Your task to perform on an android device: Open display settings Image 0: 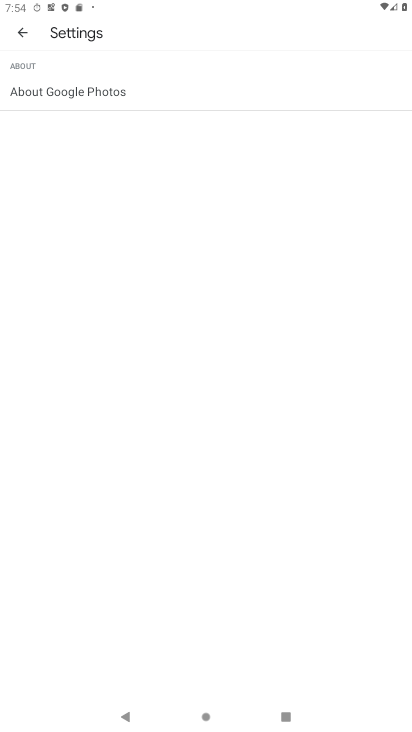
Step 0: press home button
Your task to perform on an android device: Open display settings Image 1: 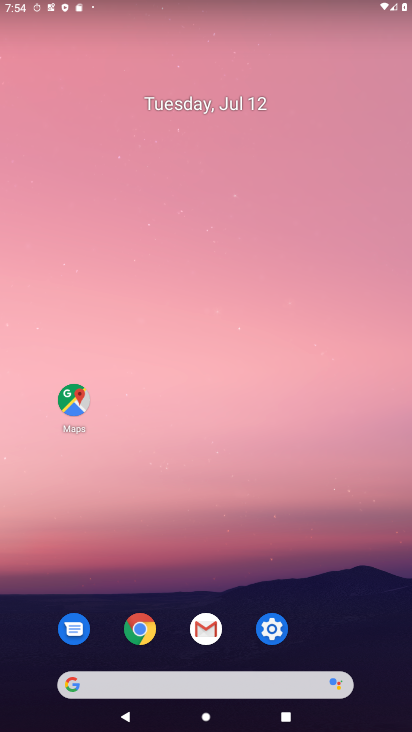
Step 1: click (273, 636)
Your task to perform on an android device: Open display settings Image 2: 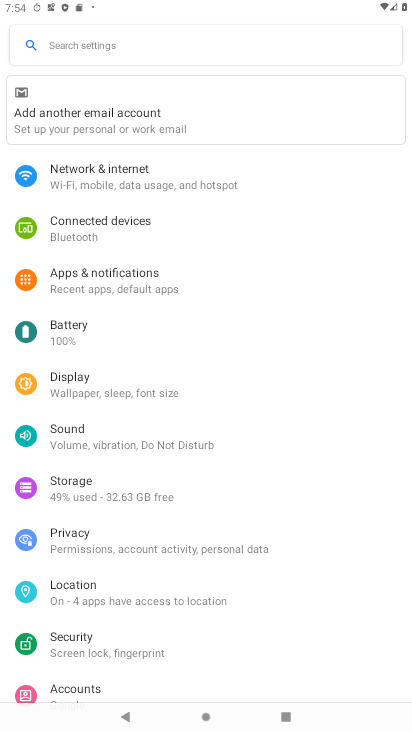
Step 2: click (91, 390)
Your task to perform on an android device: Open display settings Image 3: 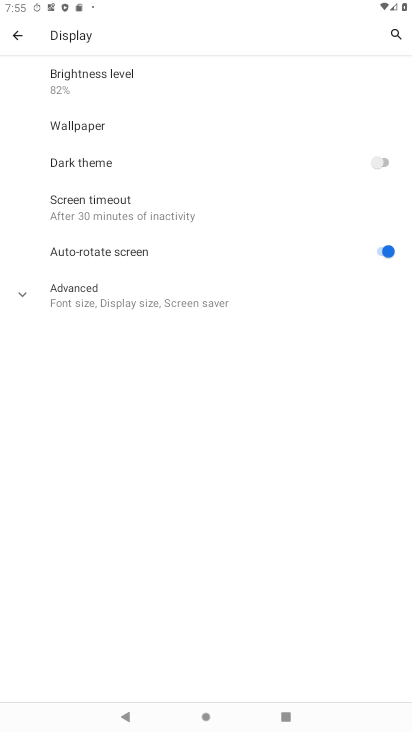
Step 3: task complete